Your task to perform on an android device: check data usage Image 0: 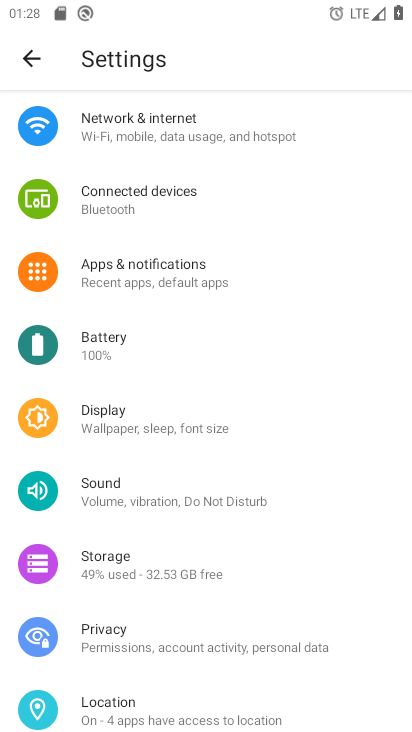
Step 0: click (253, 116)
Your task to perform on an android device: check data usage Image 1: 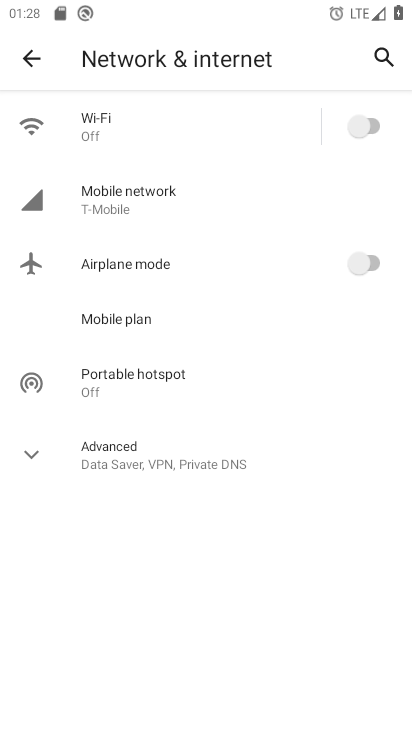
Step 1: click (202, 201)
Your task to perform on an android device: check data usage Image 2: 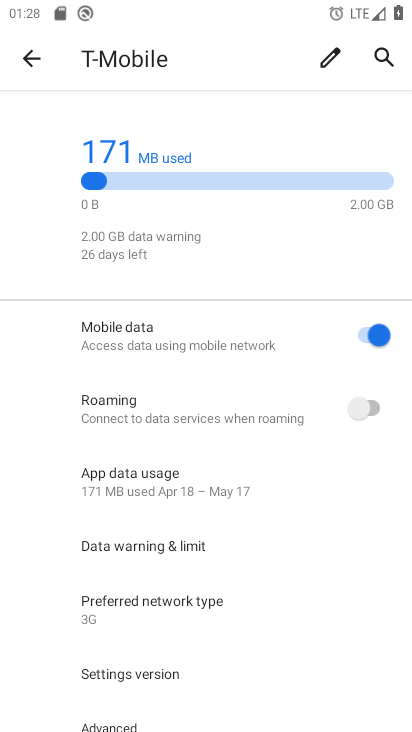
Step 2: task complete